Your task to perform on an android device: Clear all items from cart on costco.com. Image 0: 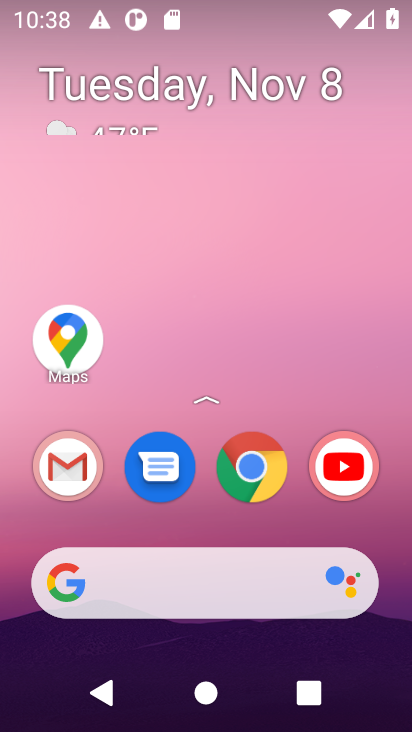
Step 0: click (183, 581)
Your task to perform on an android device: Clear all items from cart on costco.com. Image 1: 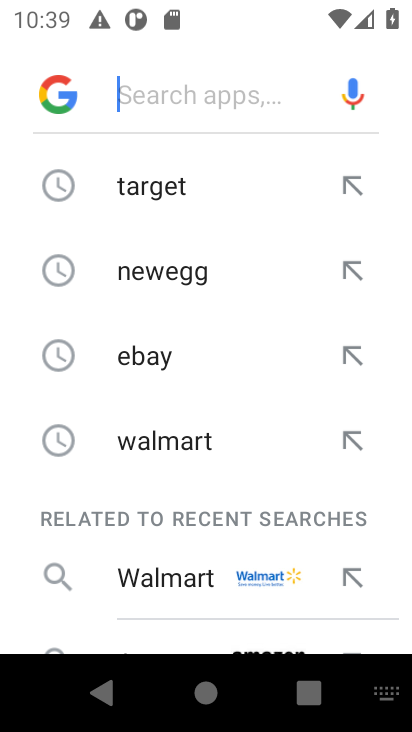
Step 1: type "costco"
Your task to perform on an android device: Clear all items from cart on costco.com. Image 2: 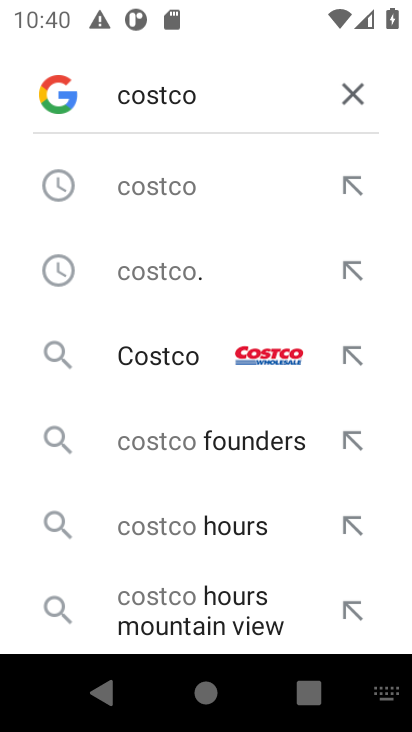
Step 2: click (261, 373)
Your task to perform on an android device: Clear all items from cart on costco.com. Image 3: 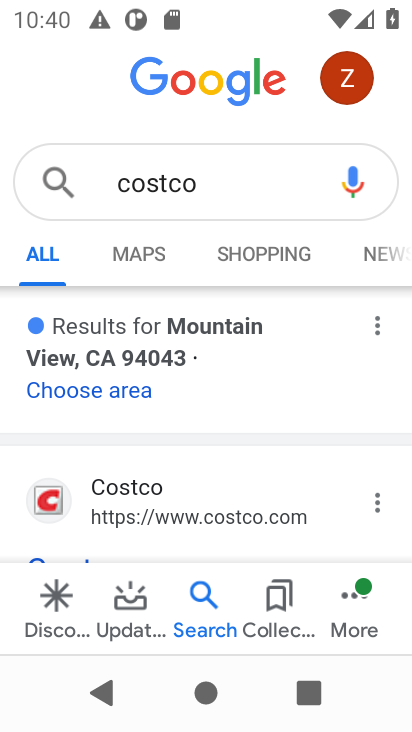
Step 3: click (184, 496)
Your task to perform on an android device: Clear all items from cart on costco.com. Image 4: 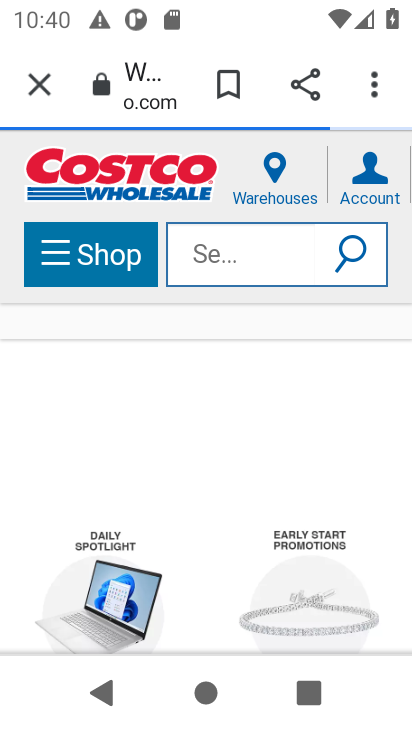
Step 4: task complete